Your task to perform on an android device: Open settings Image 0: 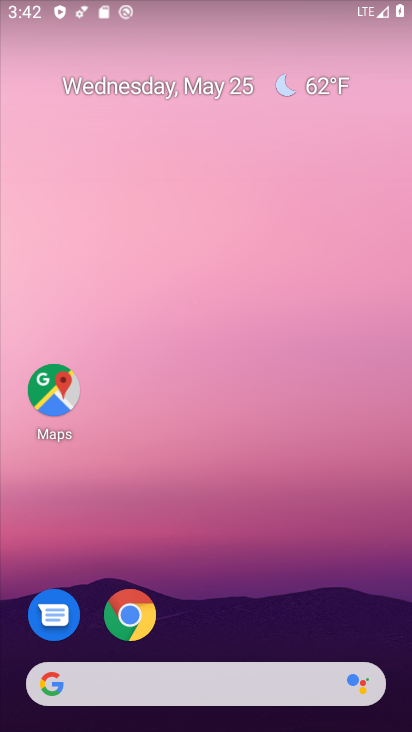
Step 0: click (210, 4)
Your task to perform on an android device: Open settings Image 1: 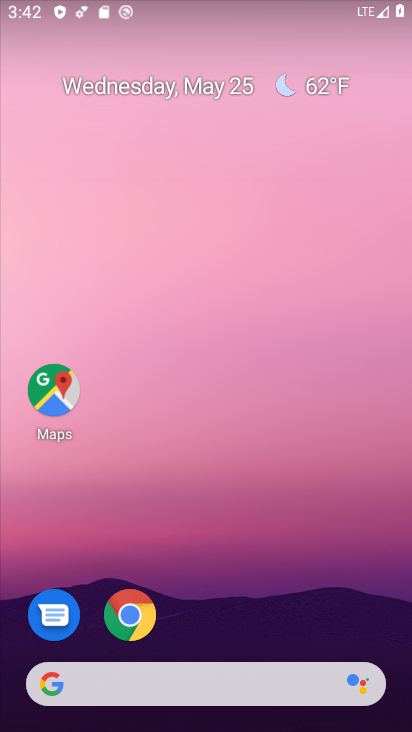
Step 1: drag from (290, 454) to (227, 0)
Your task to perform on an android device: Open settings Image 2: 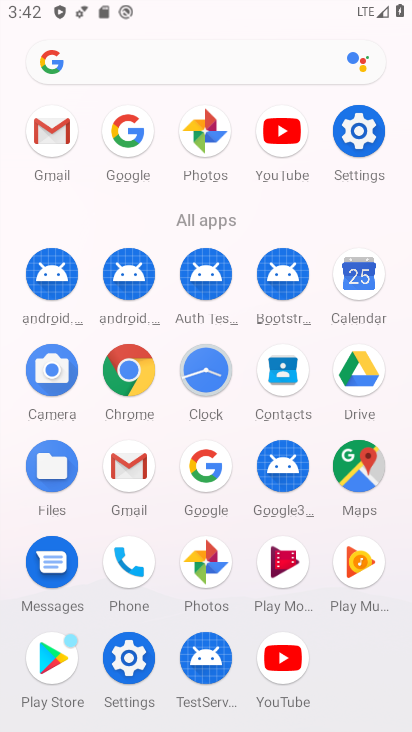
Step 2: click (357, 140)
Your task to perform on an android device: Open settings Image 3: 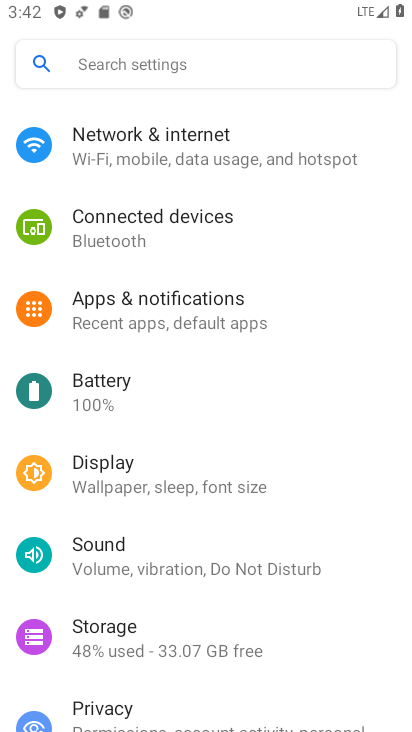
Step 3: task complete